Your task to perform on an android device: Open Maps and search for coffee Image 0: 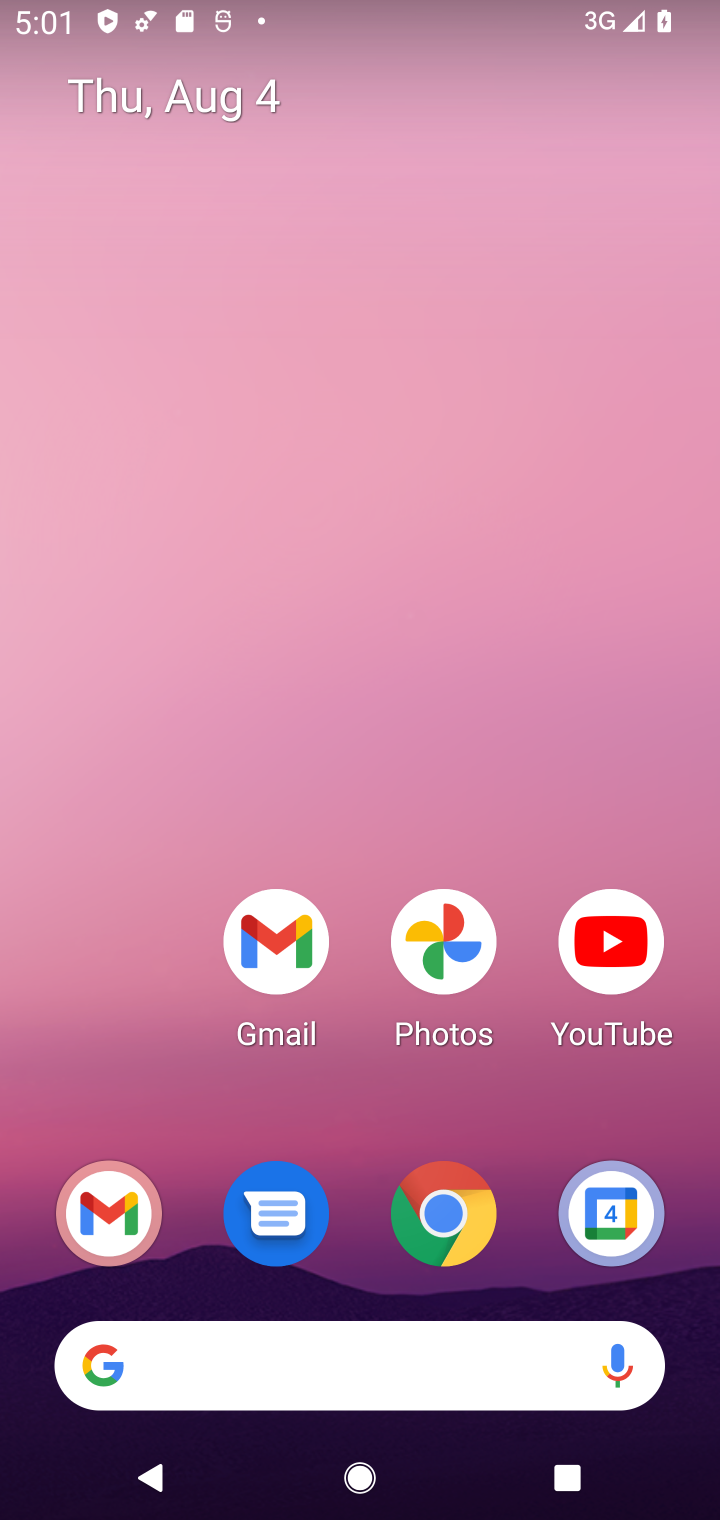
Step 0: press home button
Your task to perform on an android device: Open Maps and search for coffee Image 1: 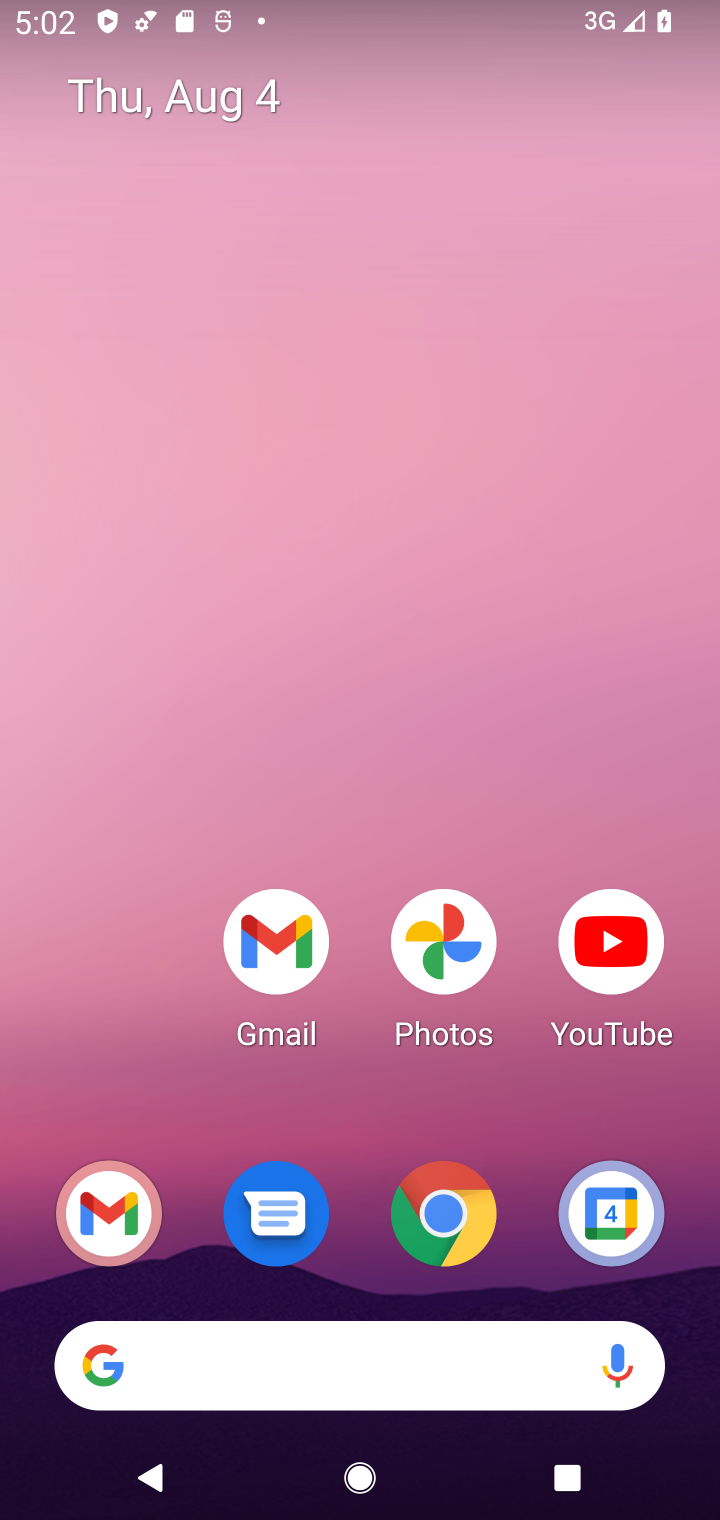
Step 1: drag from (185, 1088) to (251, 293)
Your task to perform on an android device: Open Maps and search for coffee Image 2: 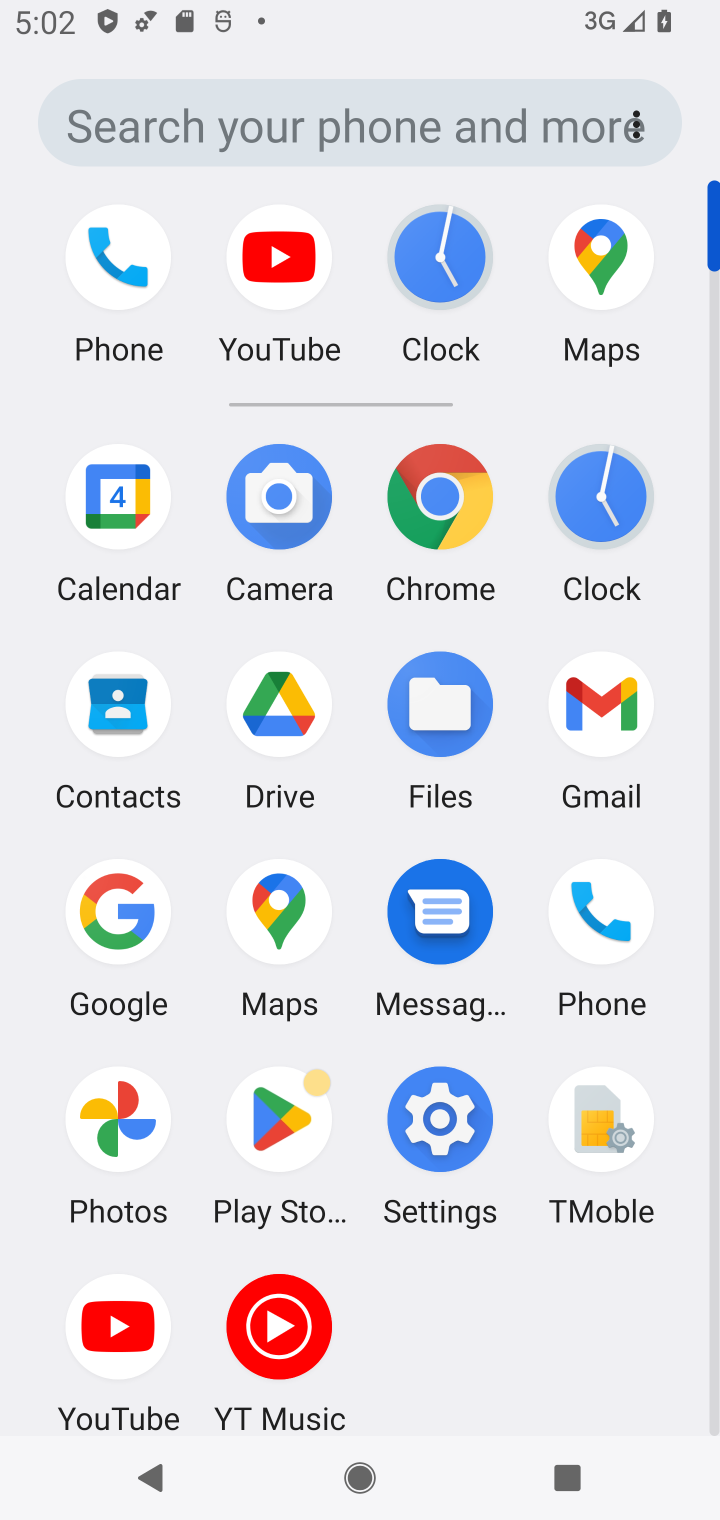
Step 2: click (315, 908)
Your task to perform on an android device: Open Maps and search for coffee Image 3: 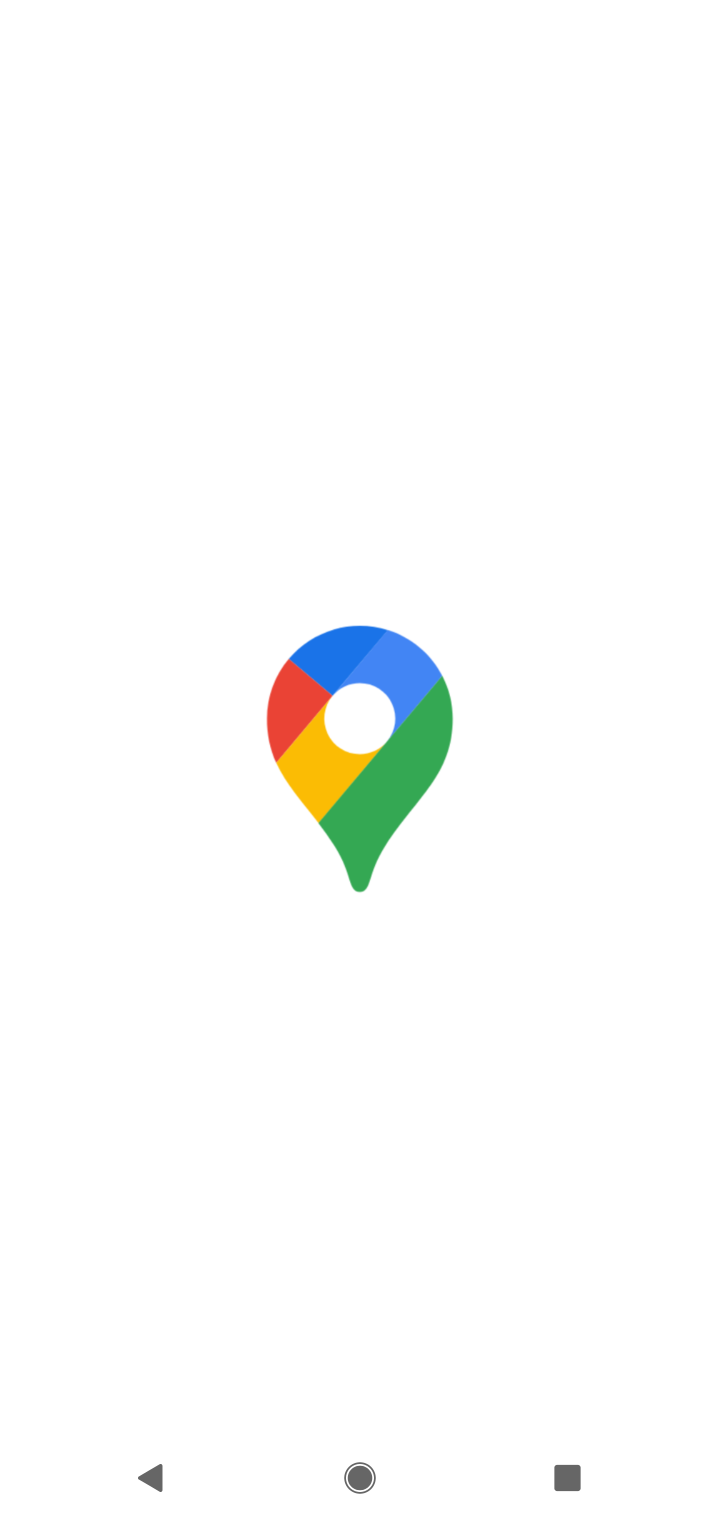
Step 3: task complete